Your task to perform on an android device: Open Google Chrome and click the shortcut for Amazon.com Image 0: 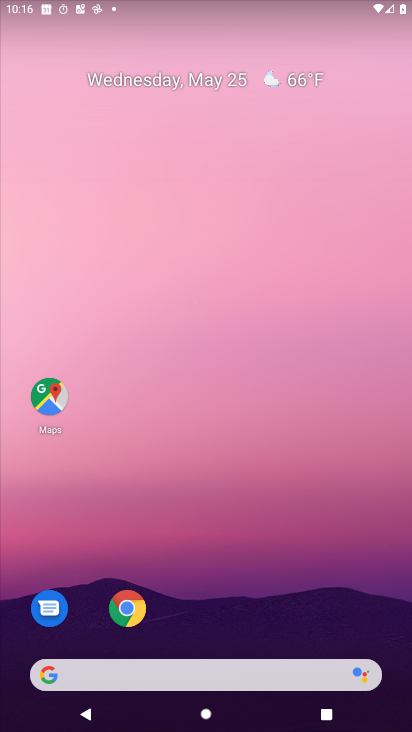
Step 0: click (124, 608)
Your task to perform on an android device: Open Google Chrome and click the shortcut for Amazon.com Image 1: 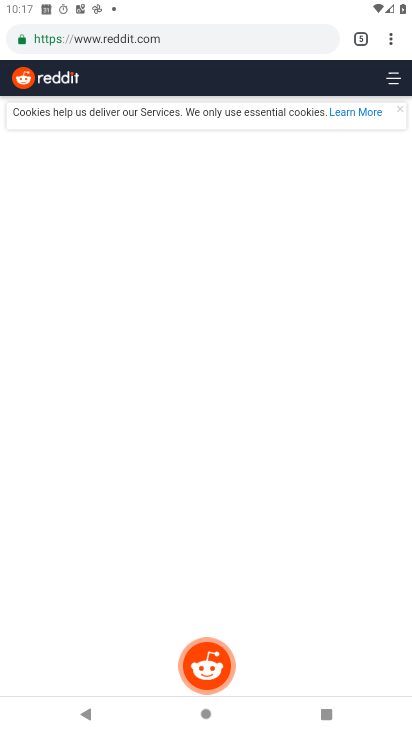
Step 1: click (390, 47)
Your task to perform on an android device: Open Google Chrome and click the shortcut for Amazon.com Image 2: 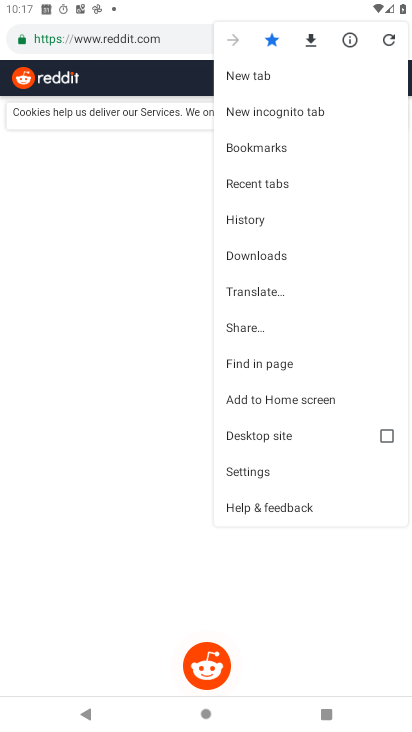
Step 2: click (251, 74)
Your task to perform on an android device: Open Google Chrome and click the shortcut for Amazon.com Image 3: 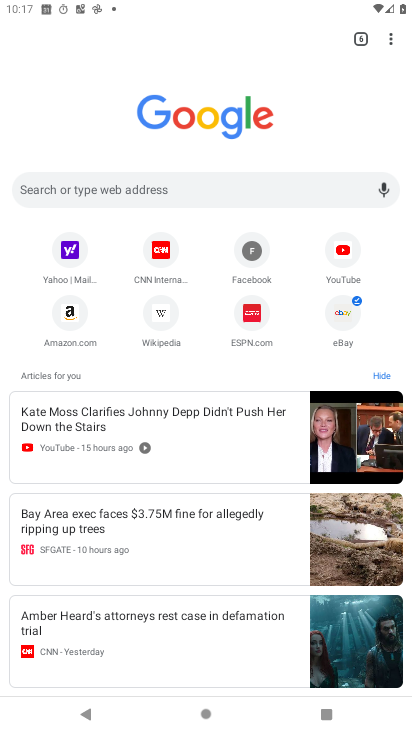
Step 3: click (69, 311)
Your task to perform on an android device: Open Google Chrome and click the shortcut for Amazon.com Image 4: 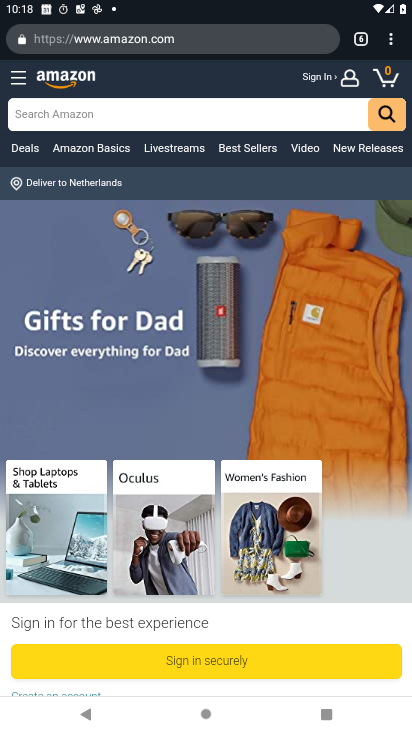
Step 4: task complete